Your task to perform on an android device: show emergency info Image 0: 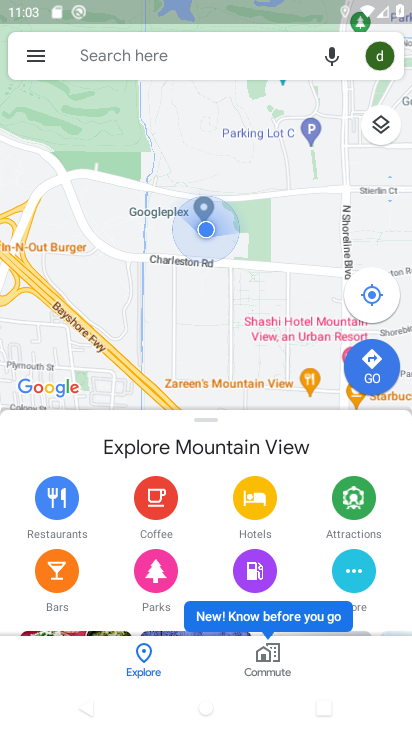
Step 0: press home button
Your task to perform on an android device: show emergency info Image 1: 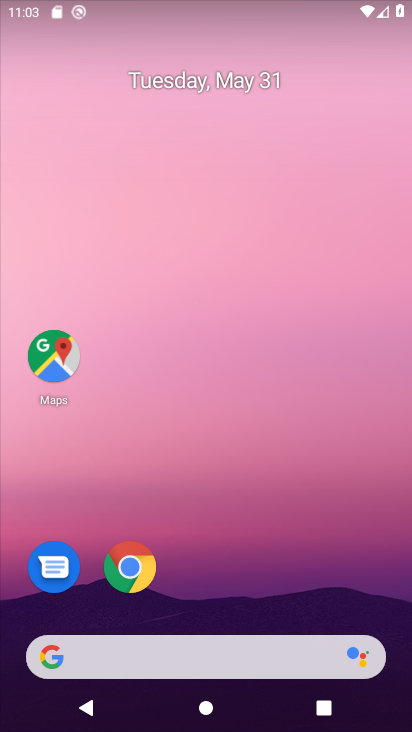
Step 1: drag from (161, 610) to (197, 134)
Your task to perform on an android device: show emergency info Image 2: 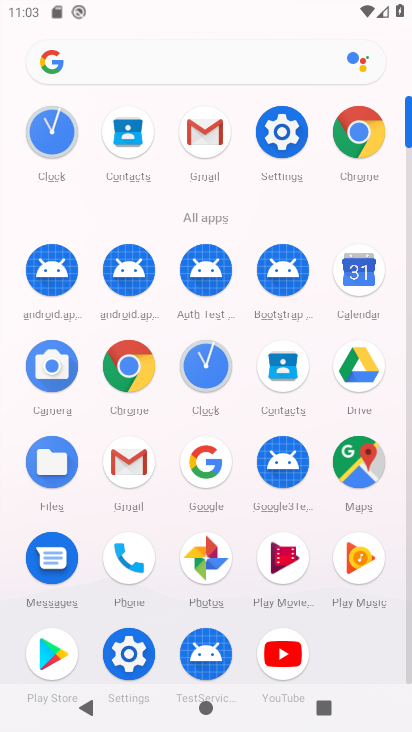
Step 2: click (281, 112)
Your task to perform on an android device: show emergency info Image 3: 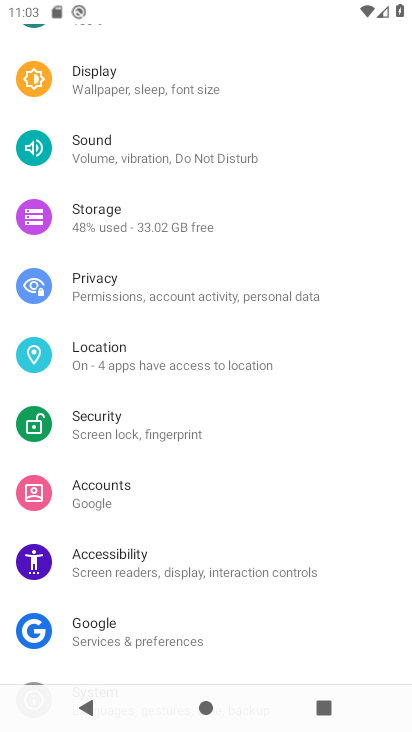
Step 3: drag from (180, 628) to (225, 60)
Your task to perform on an android device: show emergency info Image 4: 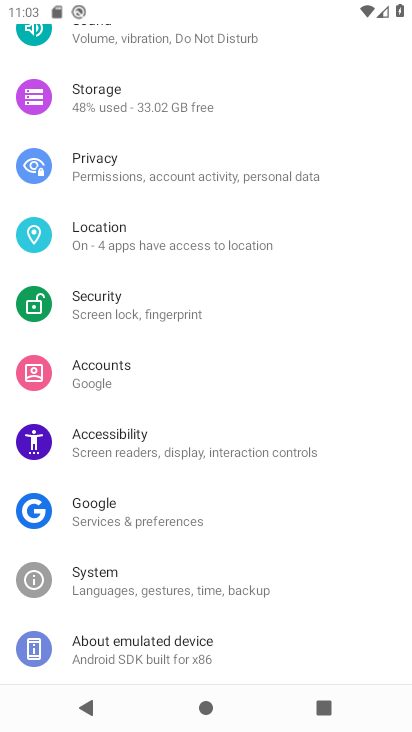
Step 4: click (112, 663)
Your task to perform on an android device: show emergency info Image 5: 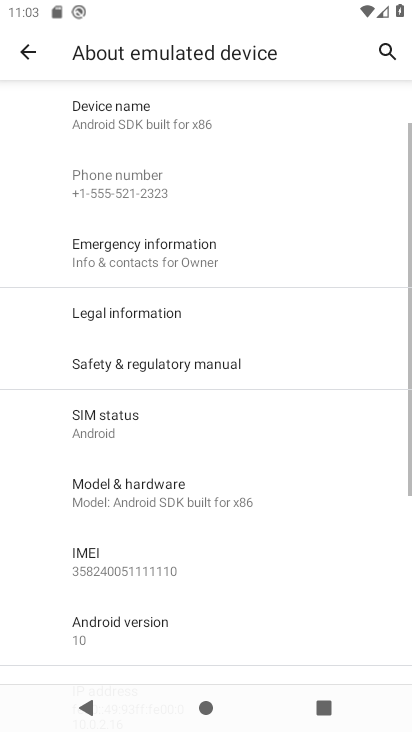
Step 5: click (112, 663)
Your task to perform on an android device: show emergency info Image 6: 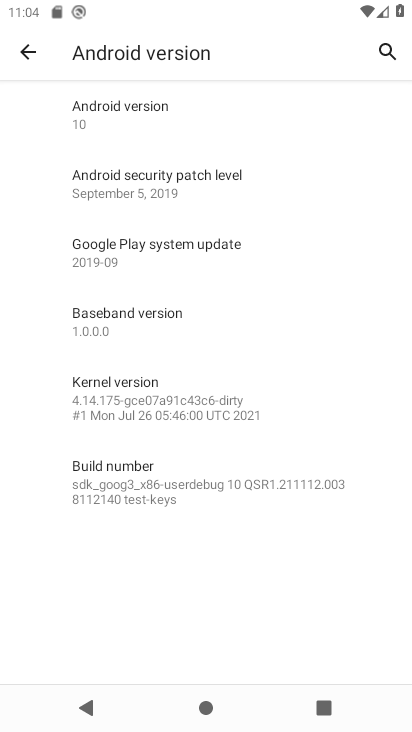
Step 6: click (22, 58)
Your task to perform on an android device: show emergency info Image 7: 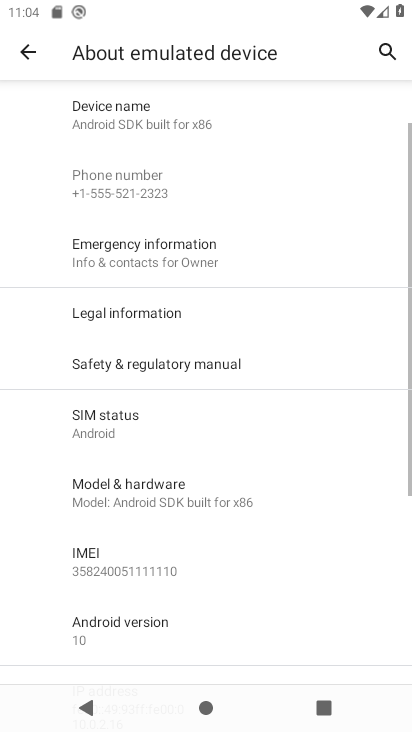
Step 7: click (222, 268)
Your task to perform on an android device: show emergency info Image 8: 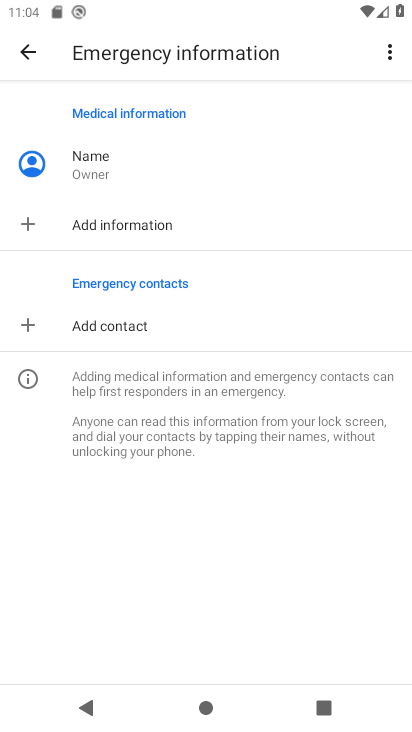
Step 8: task complete